Your task to perform on an android device: set an alarm Image 0: 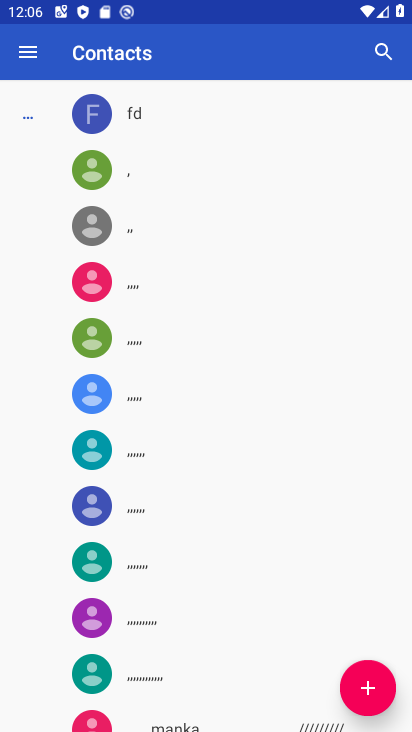
Step 0: press back button
Your task to perform on an android device: set an alarm Image 1: 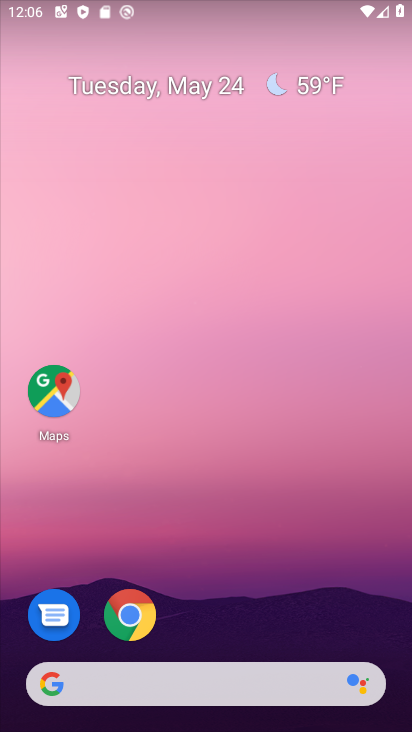
Step 1: drag from (235, 513) to (207, 34)
Your task to perform on an android device: set an alarm Image 2: 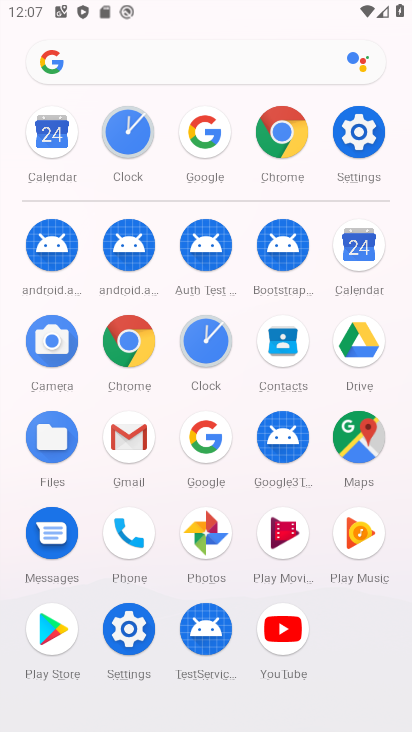
Step 2: drag from (4, 501) to (3, 218)
Your task to perform on an android device: set an alarm Image 3: 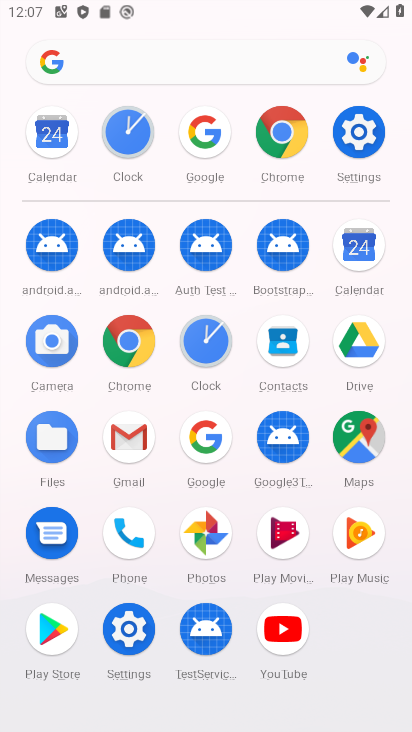
Step 3: click (204, 341)
Your task to perform on an android device: set an alarm Image 4: 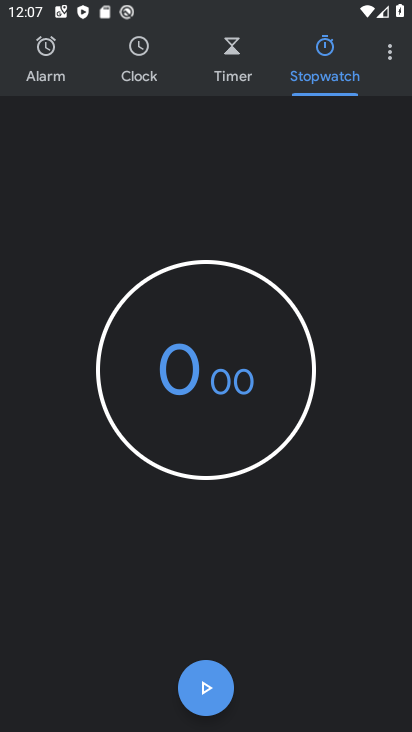
Step 4: click (60, 56)
Your task to perform on an android device: set an alarm Image 5: 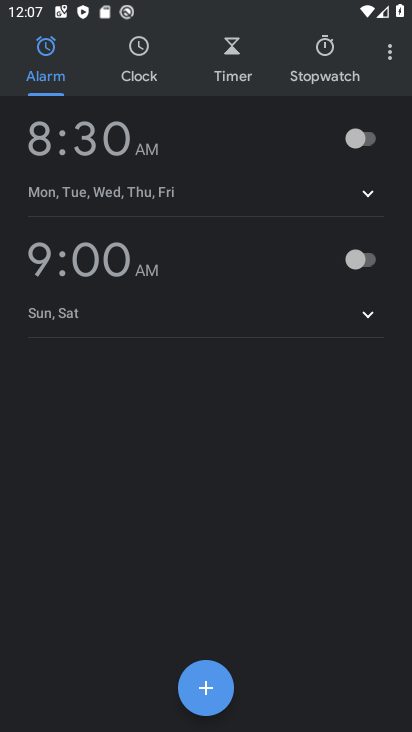
Step 5: click (206, 697)
Your task to perform on an android device: set an alarm Image 6: 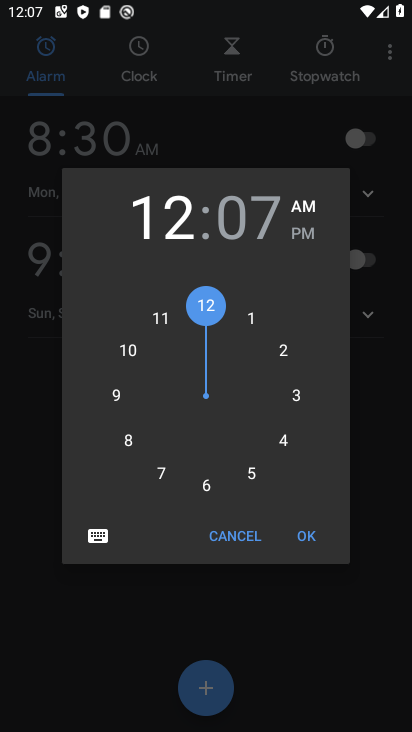
Step 6: click (302, 541)
Your task to perform on an android device: set an alarm Image 7: 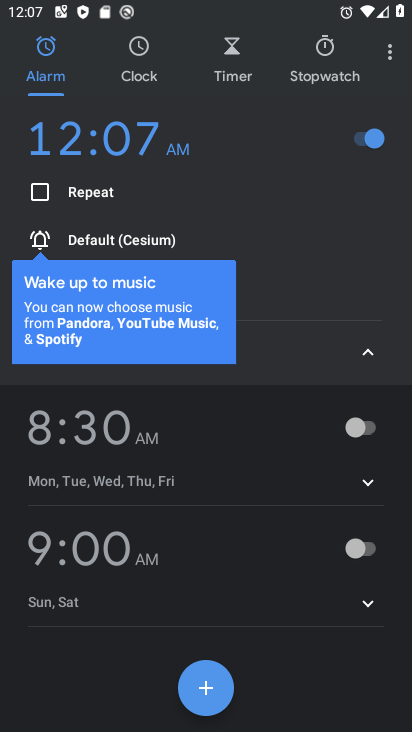
Step 7: task complete